Your task to perform on an android device: Search for Mexican restaurants on Maps Image 0: 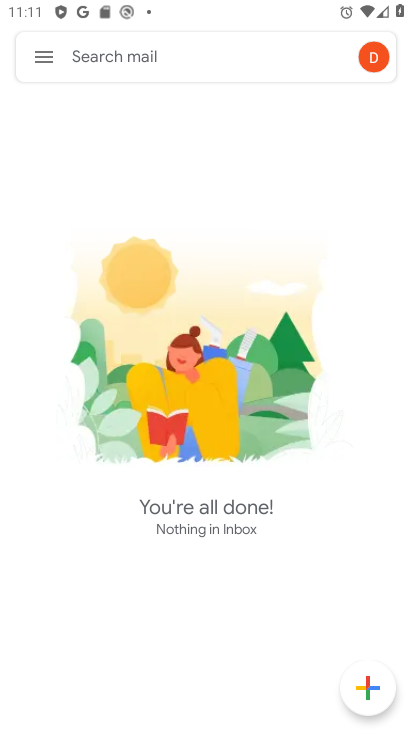
Step 0: press home button
Your task to perform on an android device: Search for Mexican restaurants on Maps Image 1: 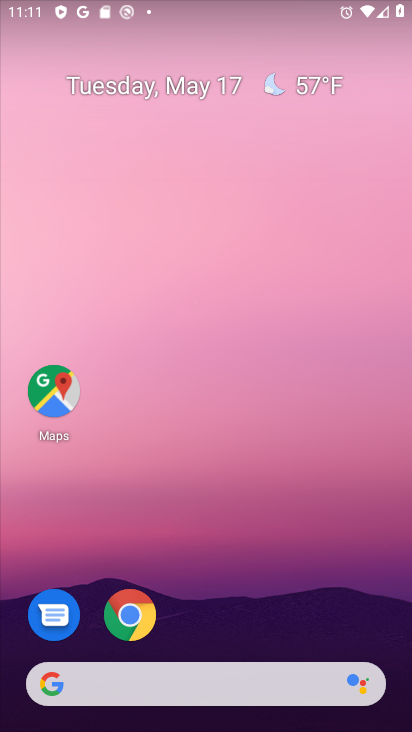
Step 1: click (76, 390)
Your task to perform on an android device: Search for Mexican restaurants on Maps Image 2: 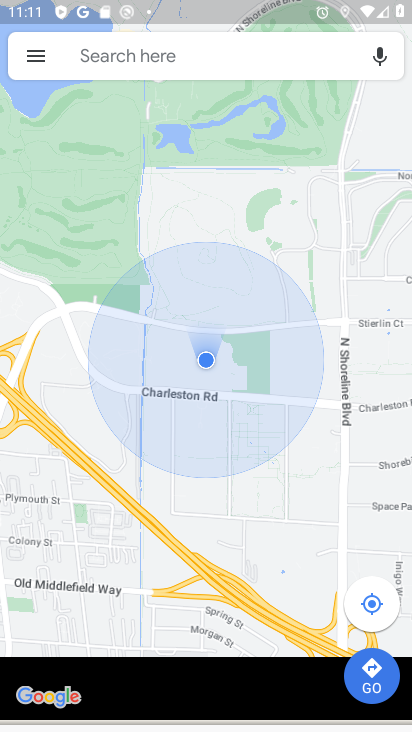
Step 2: click (191, 55)
Your task to perform on an android device: Search for Mexican restaurants on Maps Image 3: 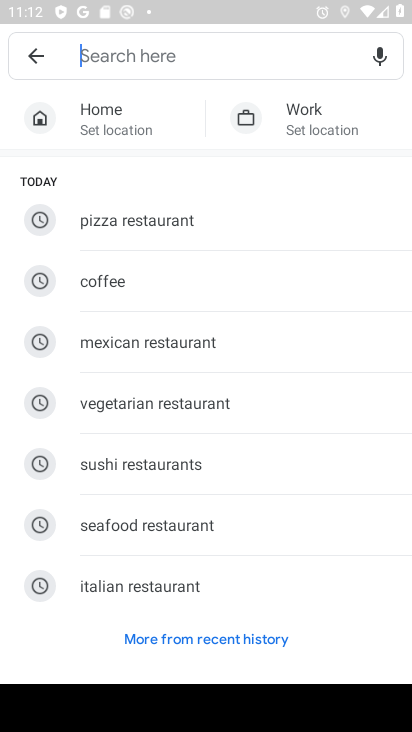
Step 3: type "Mexican restaurants"
Your task to perform on an android device: Search for Mexican restaurants on Maps Image 4: 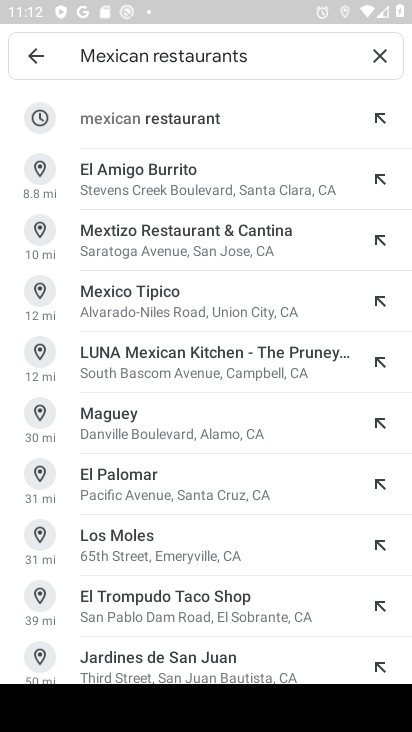
Step 4: press enter
Your task to perform on an android device: Search for Mexican restaurants on Maps Image 5: 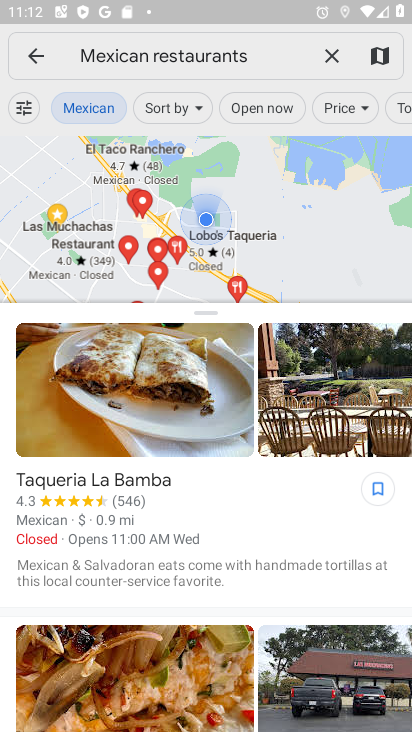
Step 5: task complete